Your task to perform on an android device: turn off location history Image 0: 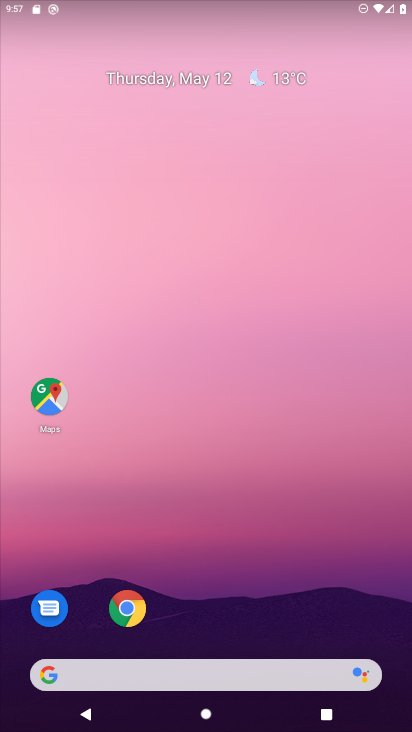
Step 0: drag from (221, 606) to (305, 168)
Your task to perform on an android device: turn off location history Image 1: 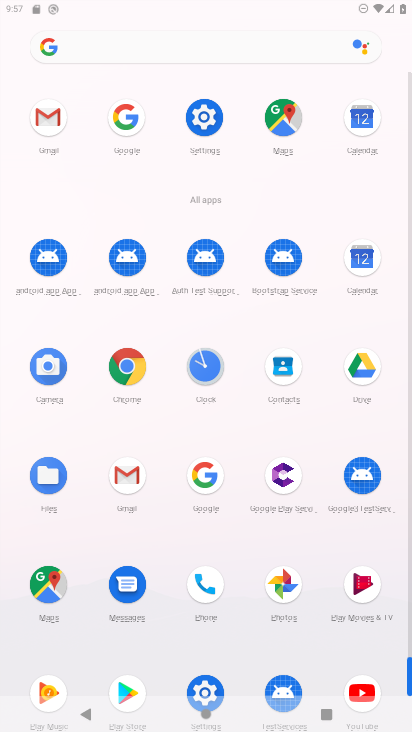
Step 1: drag from (210, 653) to (224, 59)
Your task to perform on an android device: turn off location history Image 2: 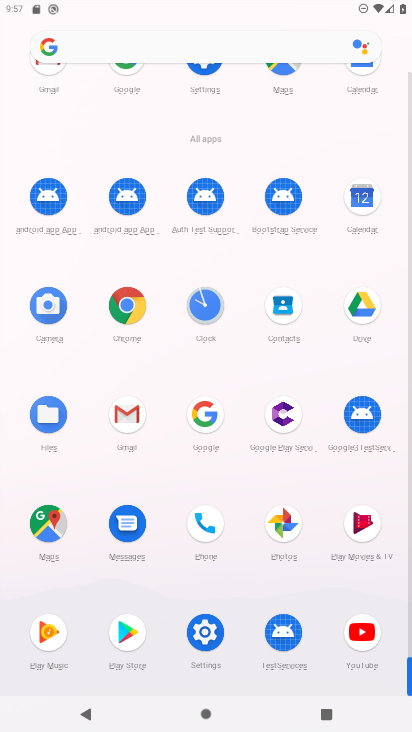
Step 2: click (202, 115)
Your task to perform on an android device: turn off location history Image 3: 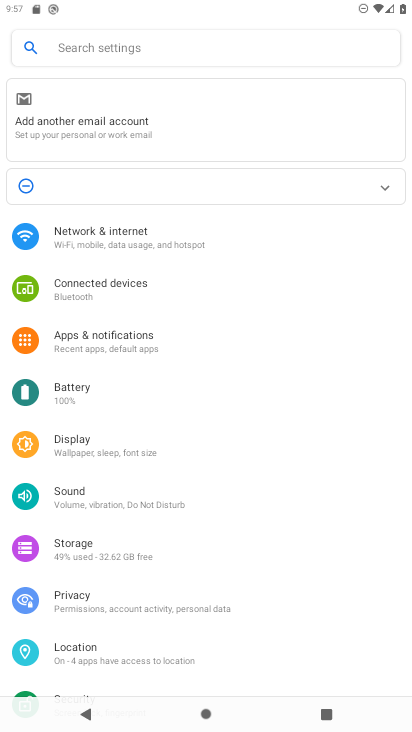
Step 3: drag from (188, 552) to (190, 310)
Your task to perform on an android device: turn off location history Image 4: 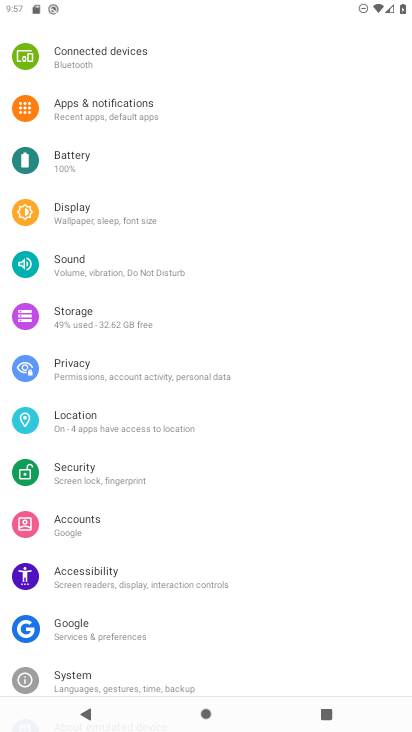
Step 4: click (72, 421)
Your task to perform on an android device: turn off location history Image 5: 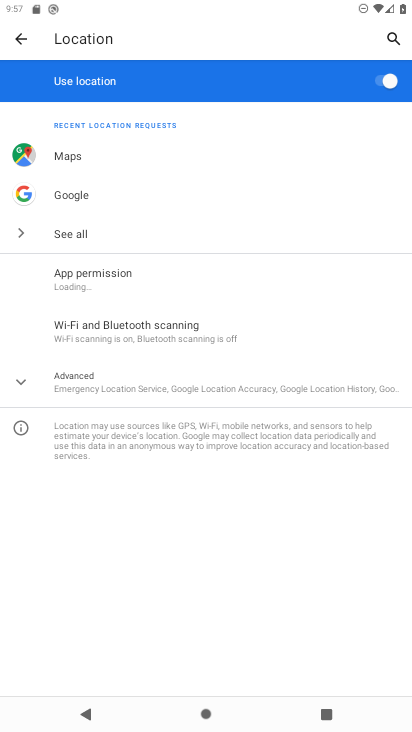
Step 5: click (63, 378)
Your task to perform on an android device: turn off location history Image 6: 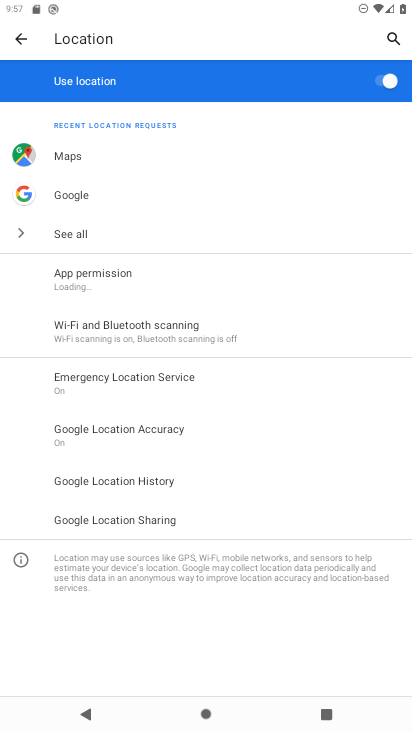
Step 6: click (126, 483)
Your task to perform on an android device: turn off location history Image 7: 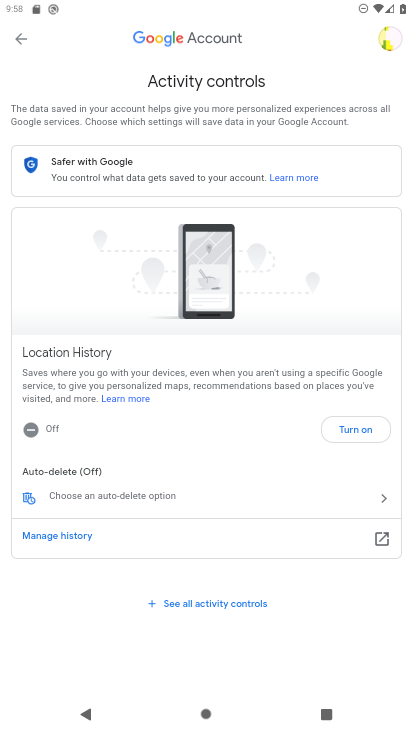
Step 7: task complete